Your task to perform on an android device: Go to Yahoo.com Image 0: 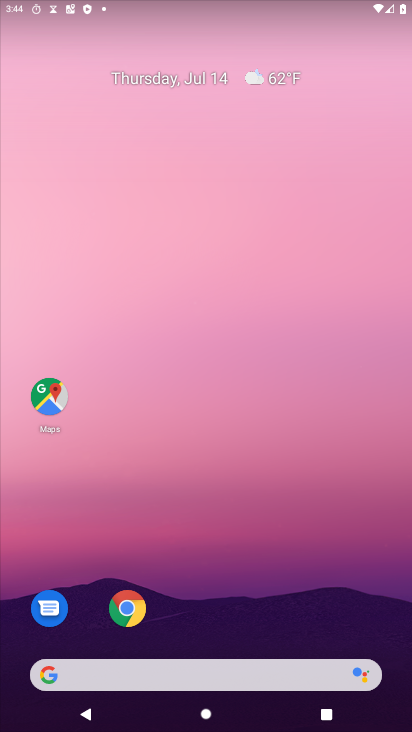
Step 0: click (138, 626)
Your task to perform on an android device: Go to Yahoo.com Image 1: 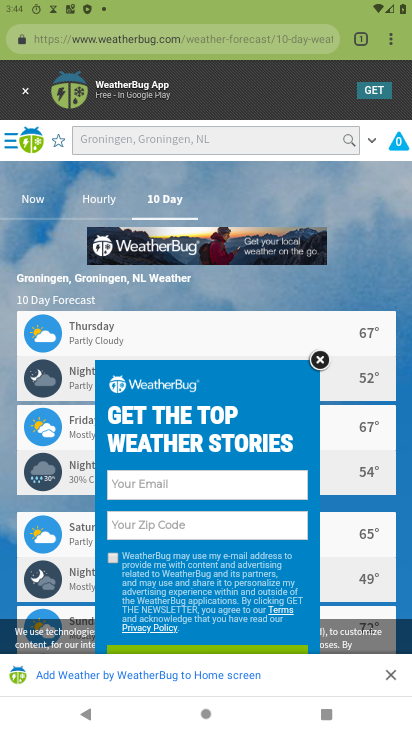
Step 1: click (191, 53)
Your task to perform on an android device: Go to Yahoo.com Image 2: 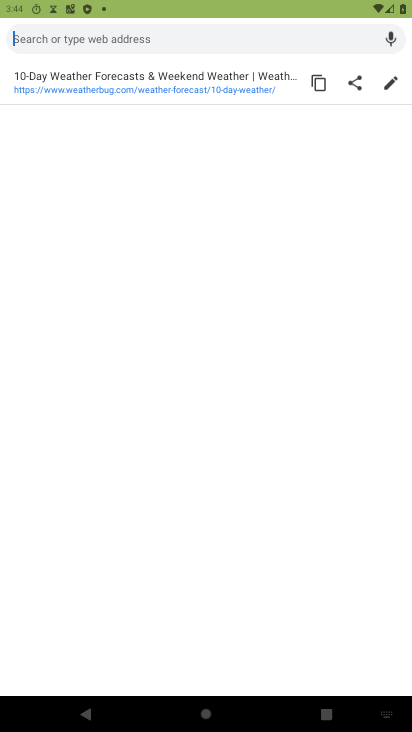
Step 2: type "yahoo.com"
Your task to perform on an android device: Go to Yahoo.com Image 3: 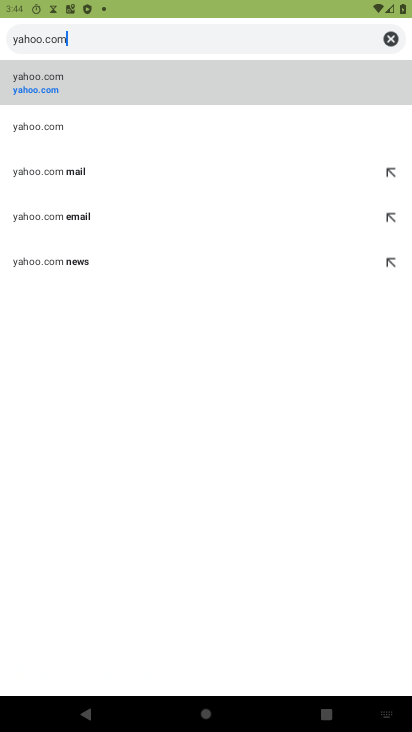
Step 3: click (60, 98)
Your task to perform on an android device: Go to Yahoo.com Image 4: 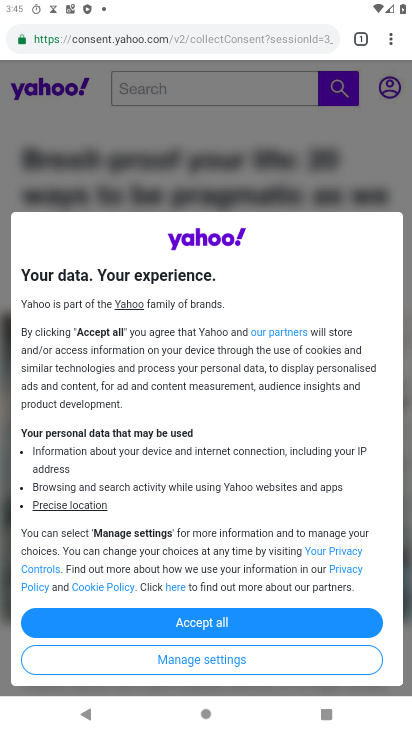
Step 4: task complete